Your task to perform on an android device: Go to Wikipedia Image 0: 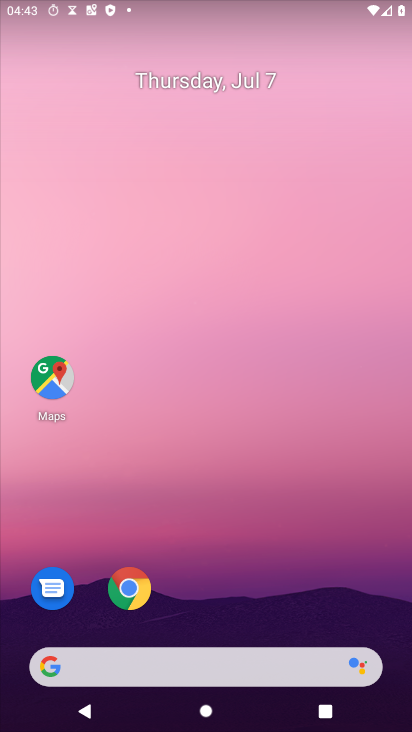
Step 0: press home button
Your task to perform on an android device: Go to Wikipedia Image 1: 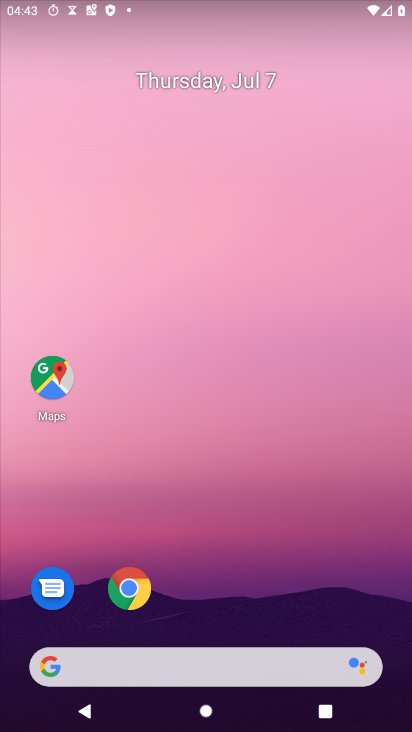
Step 1: click (48, 670)
Your task to perform on an android device: Go to Wikipedia Image 2: 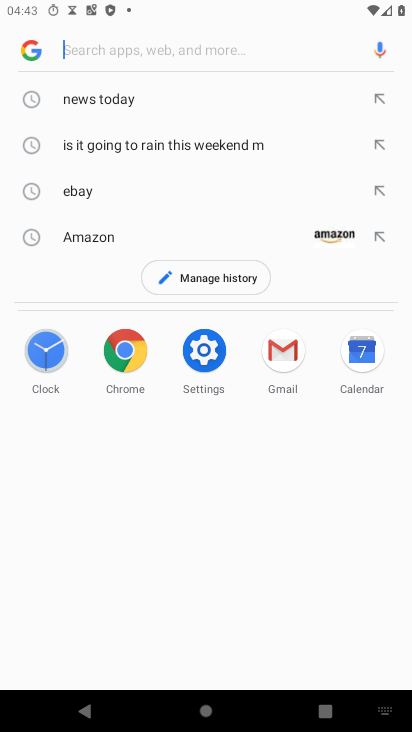
Step 2: type "Wikipedia"
Your task to perform on an android device: Go to Wikipedia Image 3: 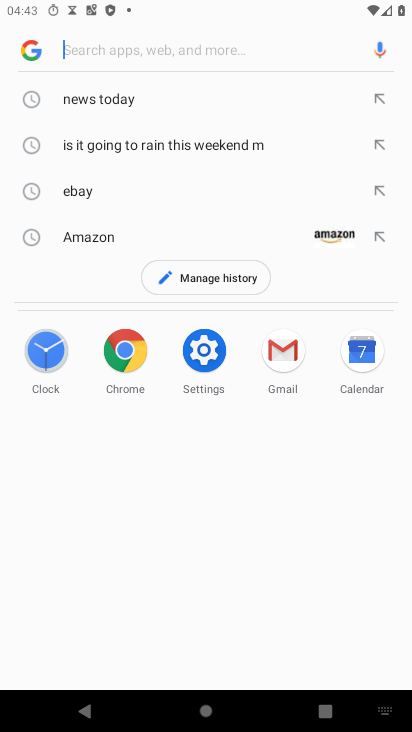
Step 3: click (201, 55)
Your task to perform on an android device: Go to Wikipedia Image 4: 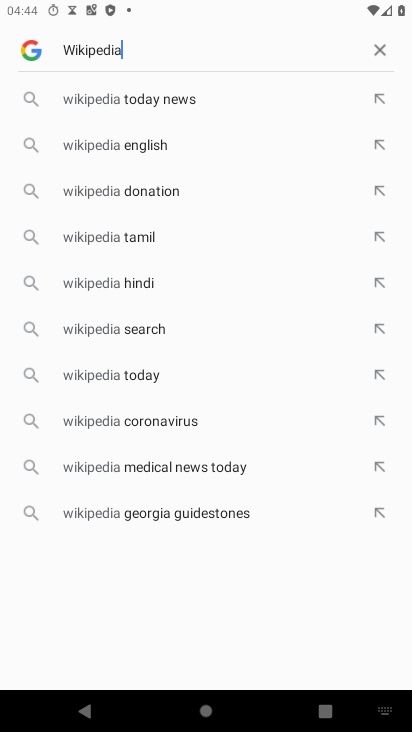
Step 4: click (153, 332)
Your task to perform on an android device: Go to Wikipedia Image 5: 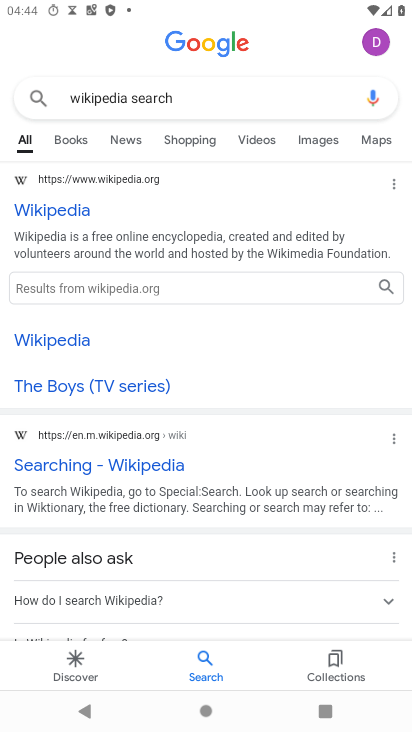
Step 5: click (44, 210)
Your task to perform on an android device: Go to Wikipedia Image 6: 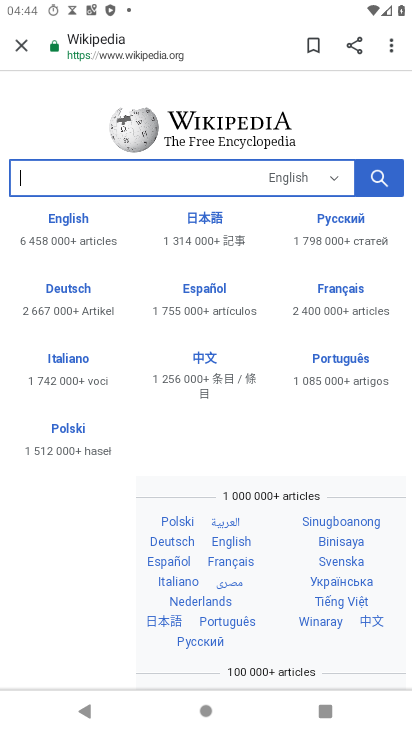
Step 6: task complete